Your task to perform on an android device: Show me popular videos on Youtube Image 0: 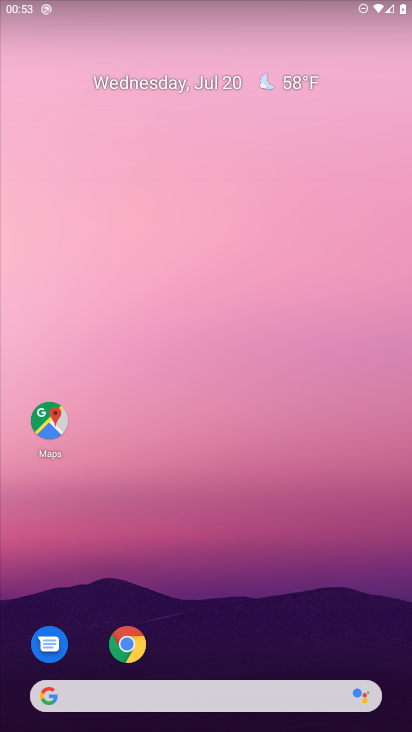
Step 0: drag from (132, 370) to (211, 58)
Your task to perform on an android device: Show me popular videos on Youtube Image 1: 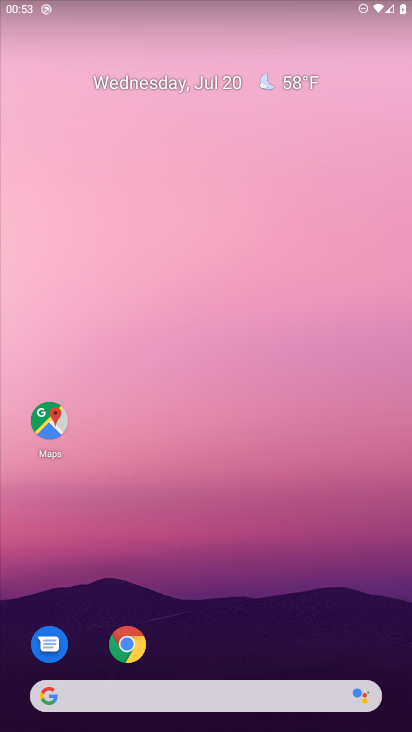
Step 1: drag from (28, 705) to (256, 100)
Your task to perform on an android device: Show me popular videos on Youtube Image 2: 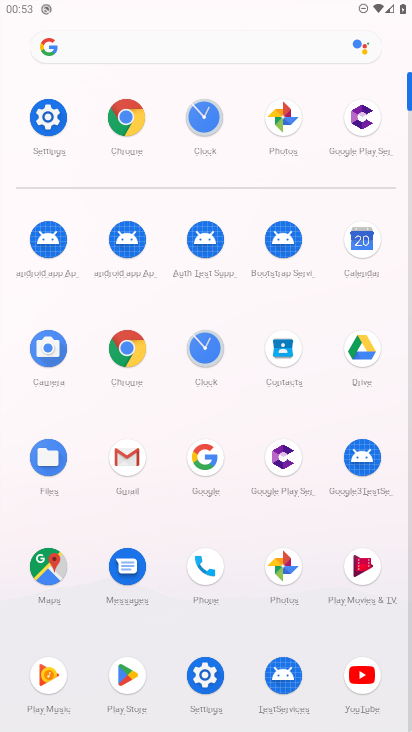
Step 2: click (347, 673)
Your task to perform on an android device: Show me popular videos on Youtube Image 3: 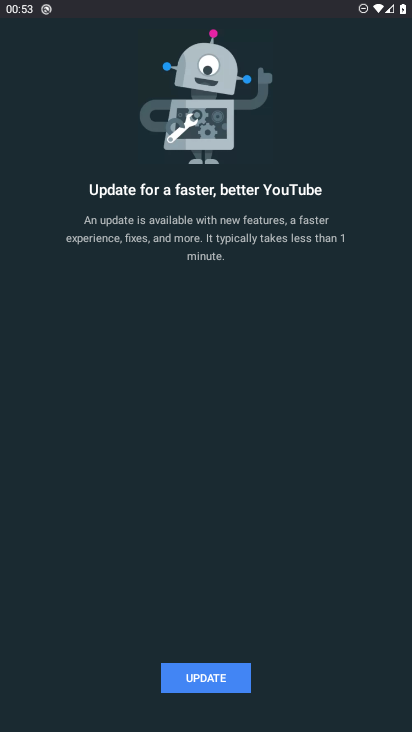
Step 3: click (233, 678)
Your task to perform on an android device: Show me popular videos on Youtube Image 4: 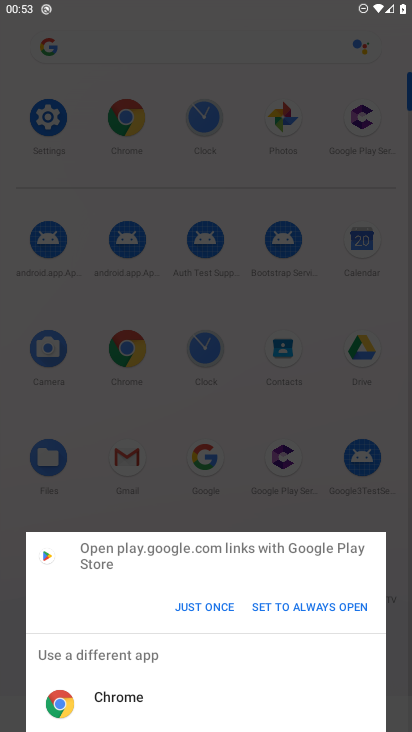
Step 4: click (189, 604)
Your task to perform on an android device: Show me popular videos on Youtube Image 5: 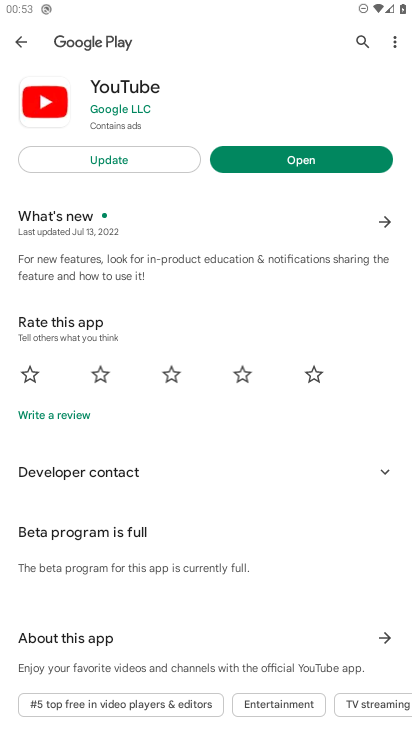
Step 5: click (259, 165)
Your task to perform on an android device: Show me popular videos on Youtube Image 6: 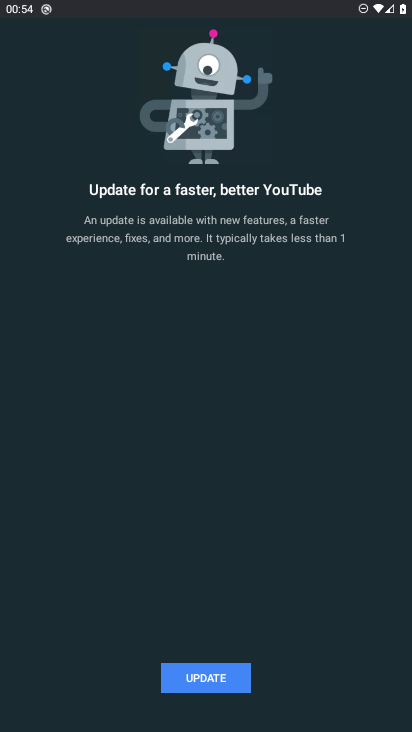
Step 6: task complete